Your task to perform on an android device: Open ESPN.com Image 0: 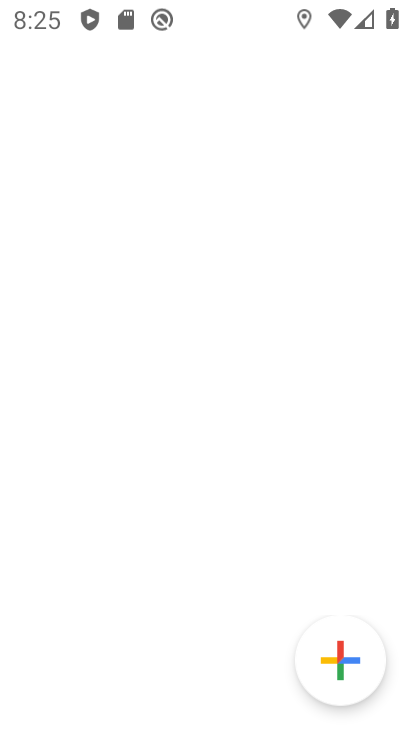
Step 0: press home button
Your task to perform on an android device: Open ESPN.com Image 1: 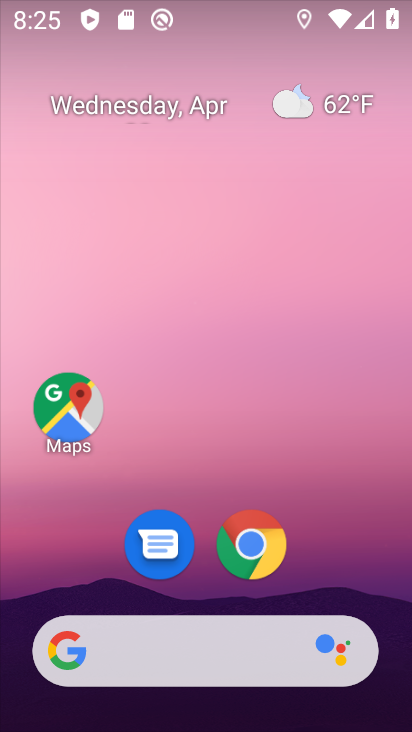
Step 1: click (264, 538)
Your task to perform on an android device: Open ESPN.com Image 2: 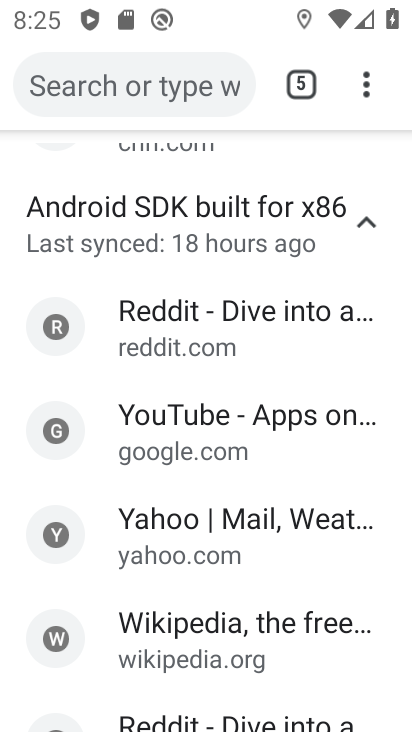
Step 2: click (303, 85)
Your task to perform on an android device: Open ESPN.com Image 3: 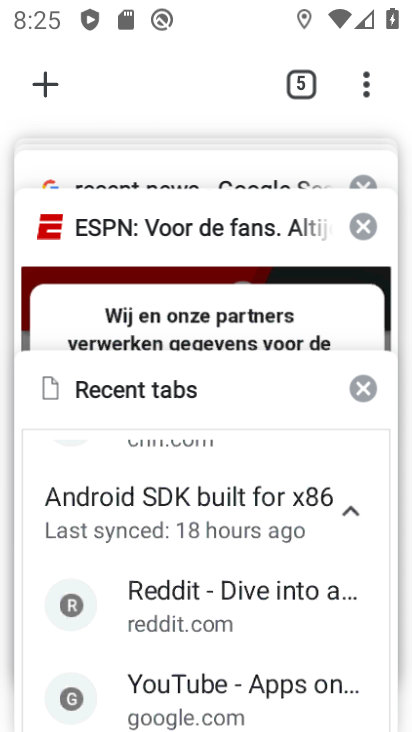
Step 3: click (209, 224)
Your task to perform on an android device: Open ESPN.com Image 4: 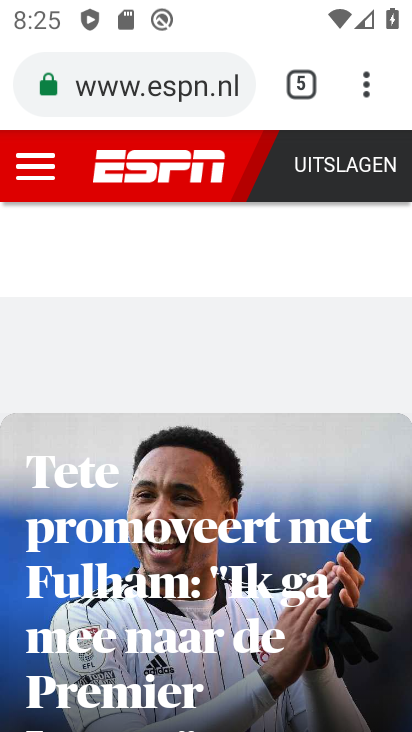
Step 4: task complete